Your task to perform on an android device: turn notification dots off Image 0: 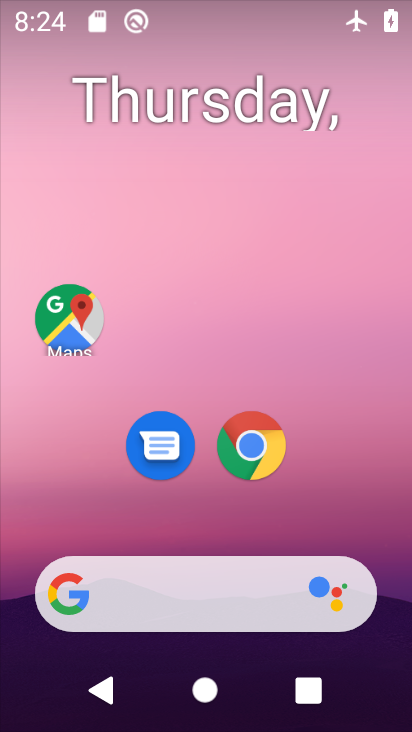
Step 0: drag from (321, 519) to (307, 172)
Your task to perform on an android device: turn notification dots off Image 1: 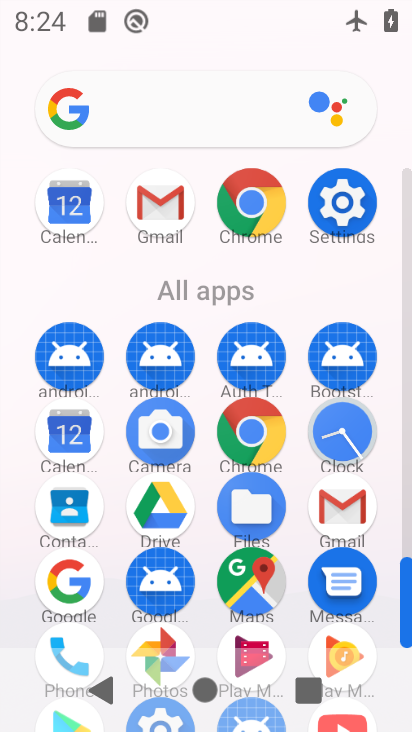
Step 1: click (354, 205)
Your task to perform on an android device: turn notification dots off Image 2: 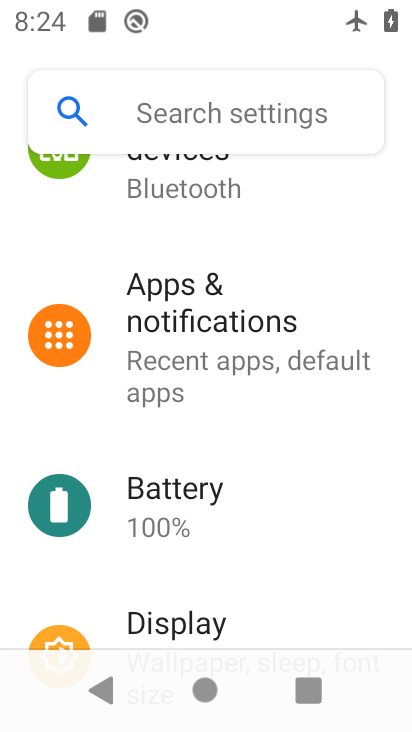
Step 2: click (205, 377)
Your task to perform on an android device: turn notification dots off Image 3: 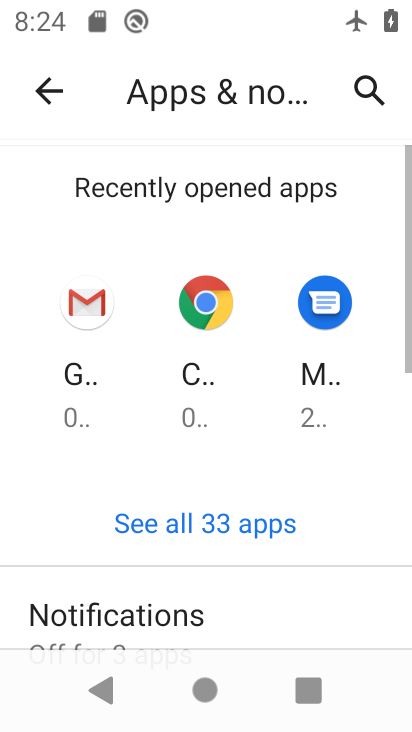
Step 3: click (174, 624)
Your task to perform on an android device: turn notification dots off Image 4: 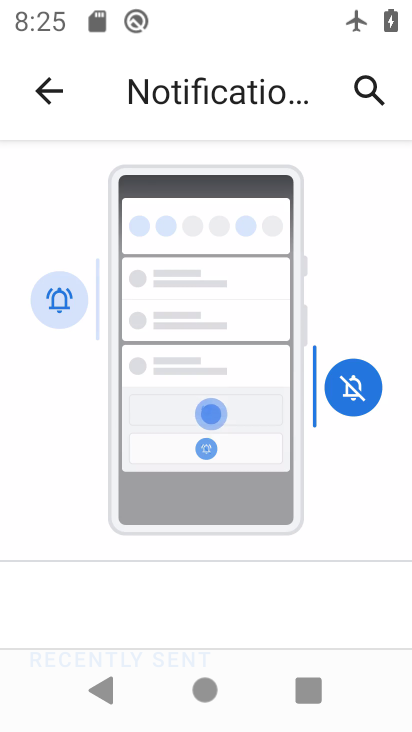
Step 4: drag from (169, 602) to (192, 258)
Your task to perform on an android device: turn notification dots off Image 5: 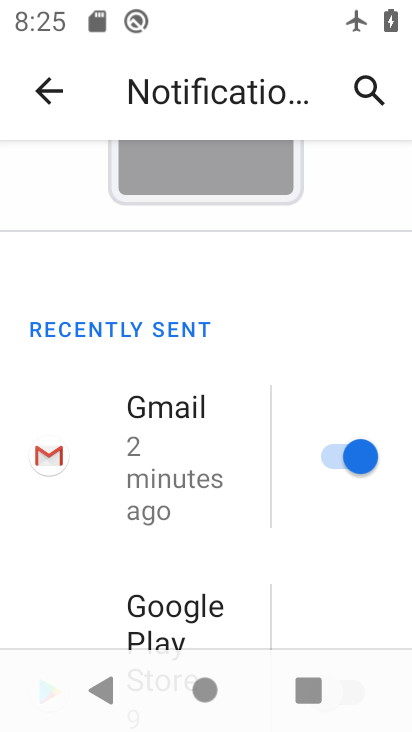
Step 5: drag from (163, 601) to (189, 346)
Your task to perform on an android device: turn notification dots off Image 6: 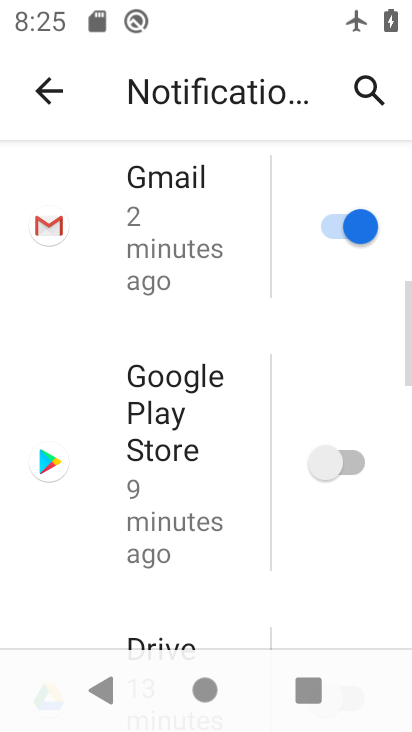
Step 6: drag from (162, 609) to (203, 222)
Your task to perform on an android device: turn notification dots off Image 7: 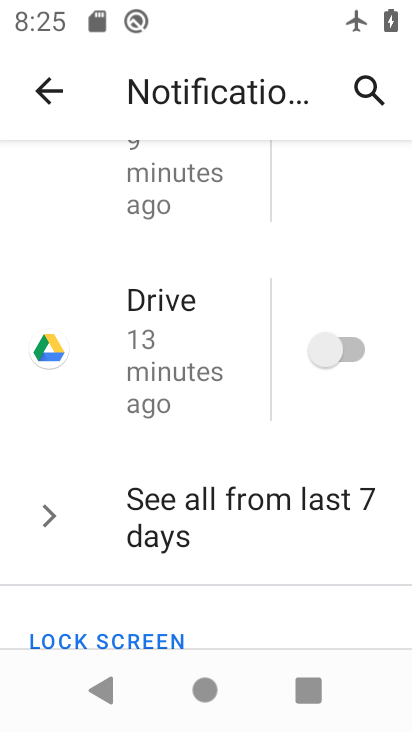
Step 7: drag from (179, 586) to (164, 251)
Your task to perform on an android device: turn notification dots off Image 8: 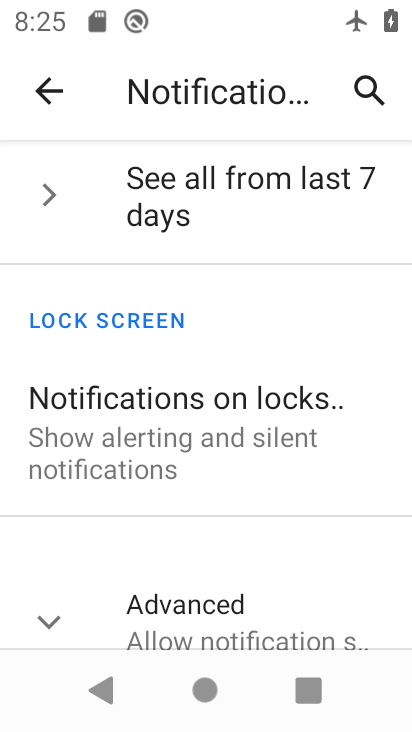
Step 8: click (166, 628)
Your task to perform on an android device: turn notification dots off Image 9: 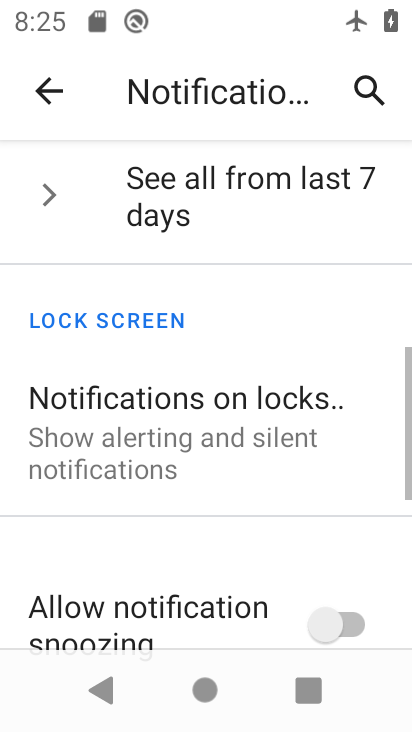
Step 9: drag from (166, 627) to (189, 259)
Your task to perform on an android device: turn notification dots off Image 10: 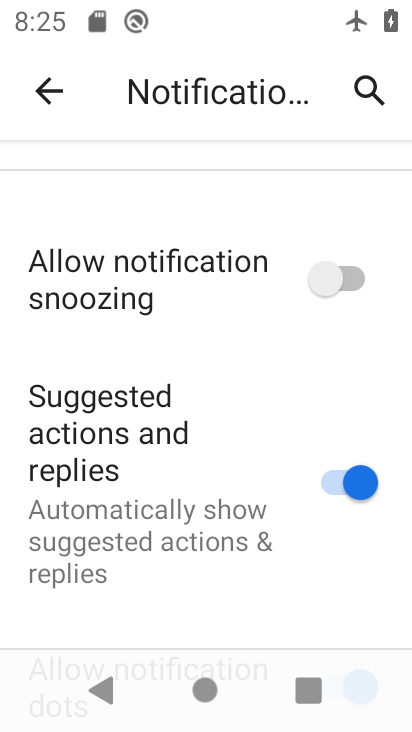
Step 10: drag from (157, 581) to (157, 304)
Your task to perform on an android device: turn notification dots off Image 11: 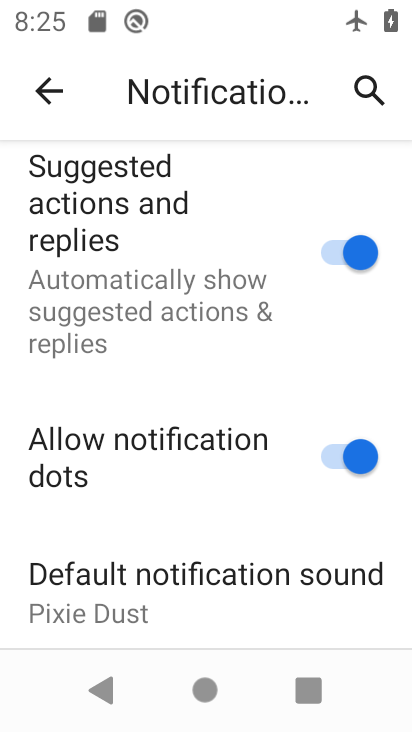
Step 11: click (360, 464)
Your task to perform on an android device: turn notification dots off Image 12: 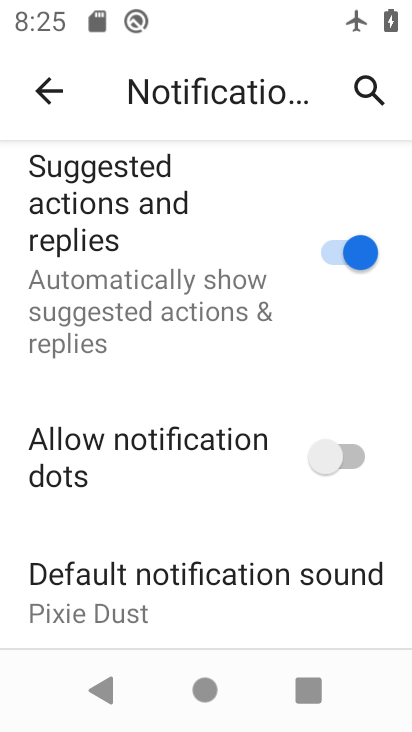
Step 12: task complete